Your task to perform on an android device: turn on bluetooth scan Image 0: 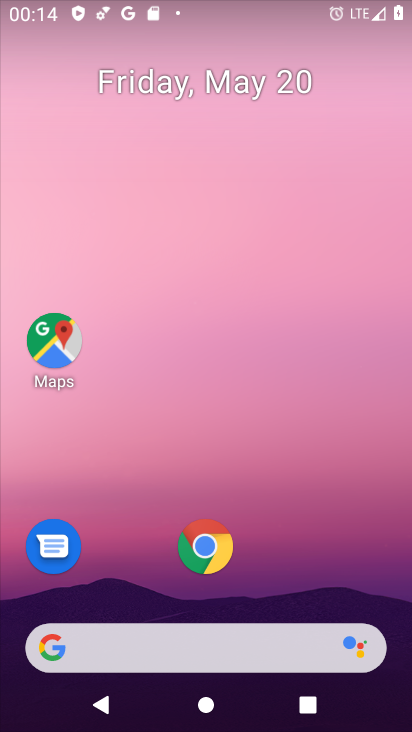
Step 0: drag from (333, 547) to (288, 134)
Your task to perform on an android device: turn on bluetooth scan Image 1: 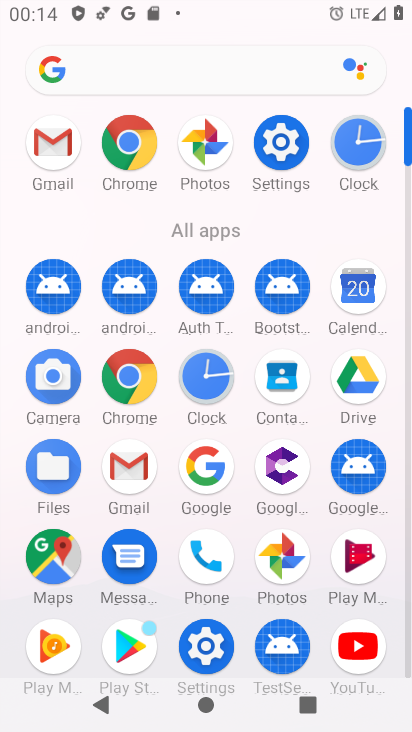
Step 1: click (288, 151)
Your task to perform on an android device: turn on bluetooth scan Image 2: 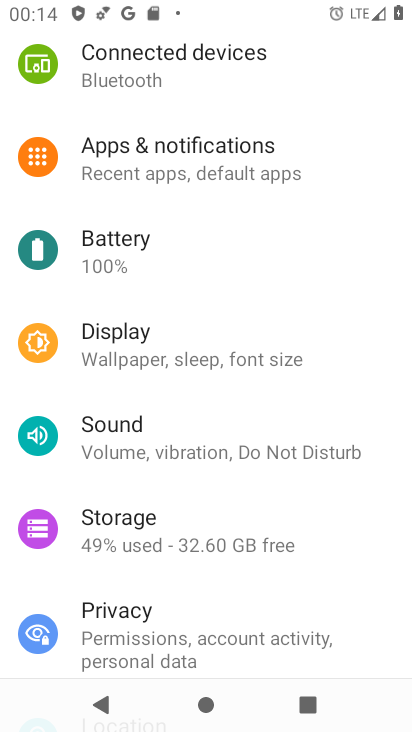
Step 2: drag from (213, 577) to (263, 131)
Your task to perform on an android device: turn on bluetooth scan Image 3: 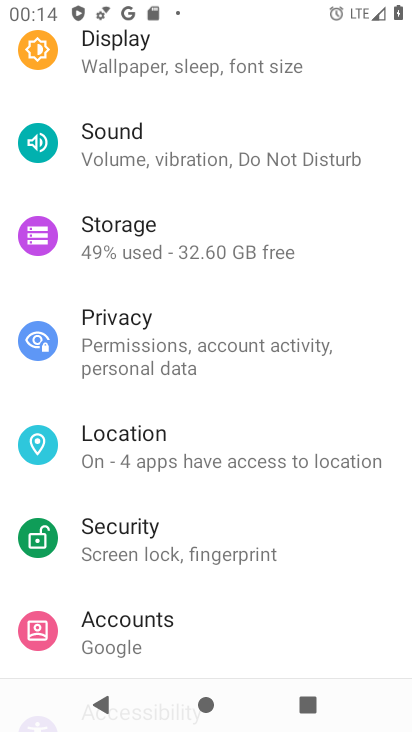
Step 3: click (264, 129)
Your task to perform on an android device: turn on bluetooth scan Image 4: 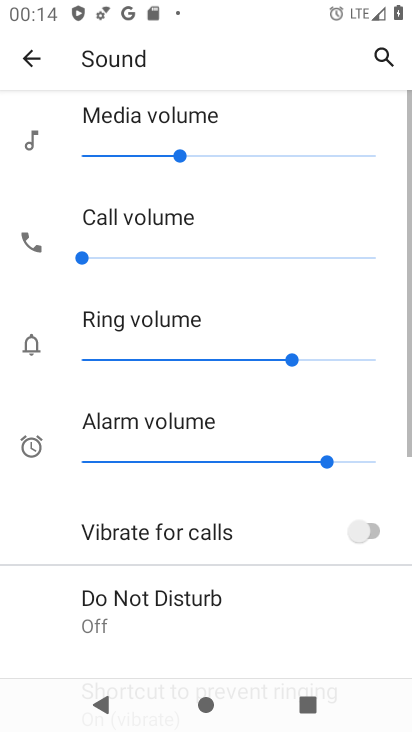
Step 4: click (25, 51)
Your task to perform on an android device: turn on bluetooth scan Image 5: 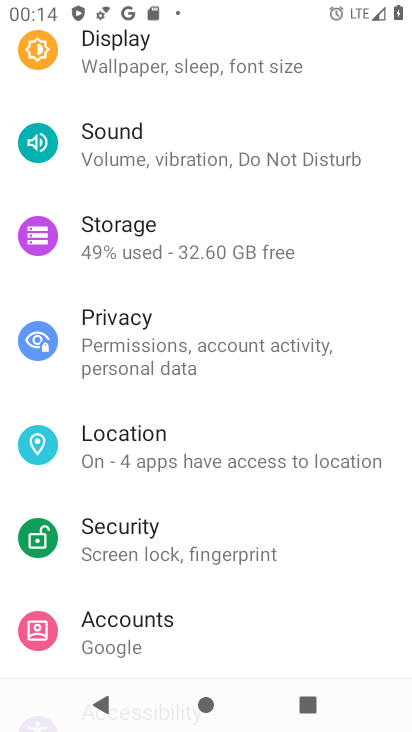
Step 5: click (177, 459)
Your task to perform on an android device: turn on bluetooth scan Image 6: 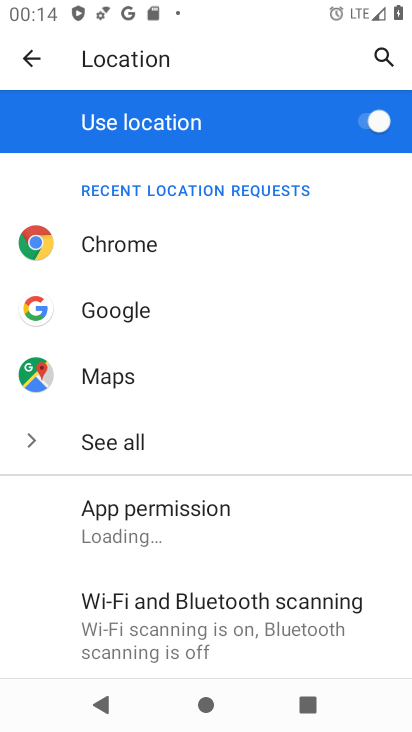
Step 6: click (249, 627)
Your task to perform on an android device: turn on bluetooth scan Image 7: 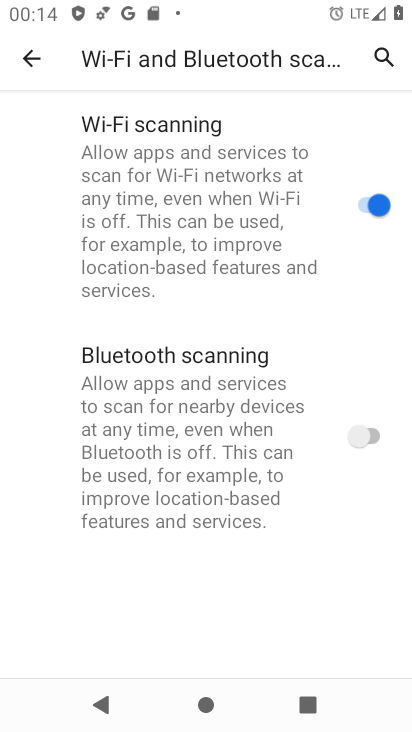
Step 7: click (347, 436)
Your task to perform on an android device: turn on bluetooth scan Image 8: 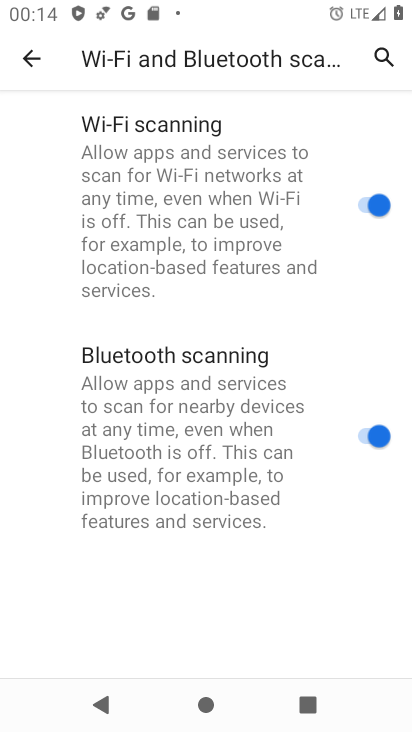
Step 8: task complete